Your task to perform on an android device: create a new album in the google photos Image 0: 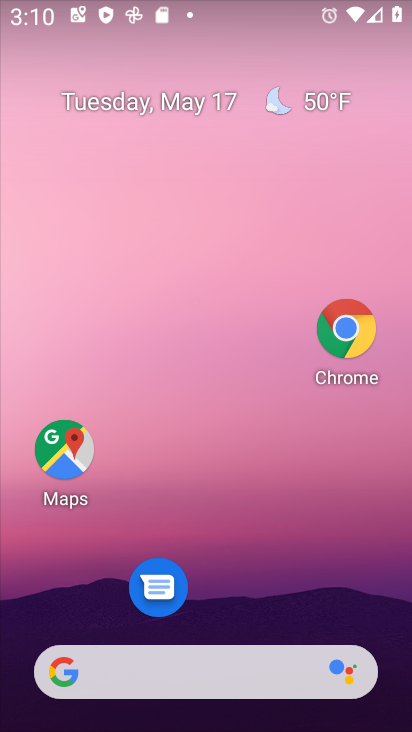
Step 0: drag from (255, 574) to (240, 170)
Your task to perform on an android device: create a new album in the google photos Image 1: 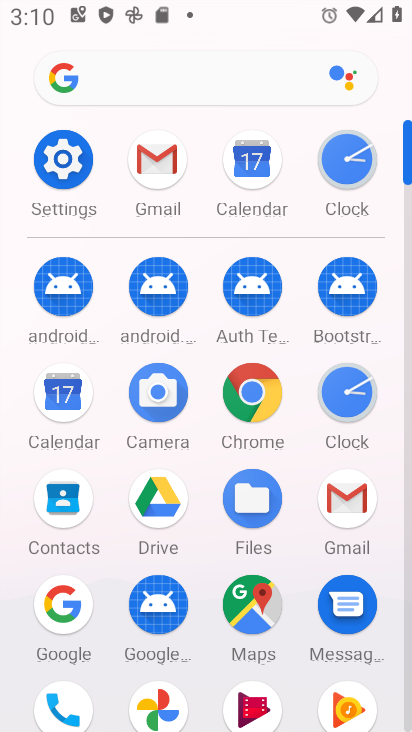
Step 1: click (154, 705)
Your task to perform on an android device: create a new album in the google photos Image 2: 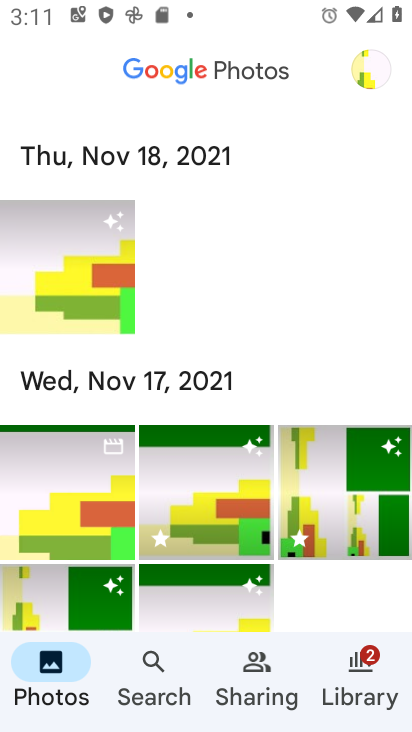
Step 2: click (359, 661)
Your task to perform on an android device: create a new album in the google photos Image 3: 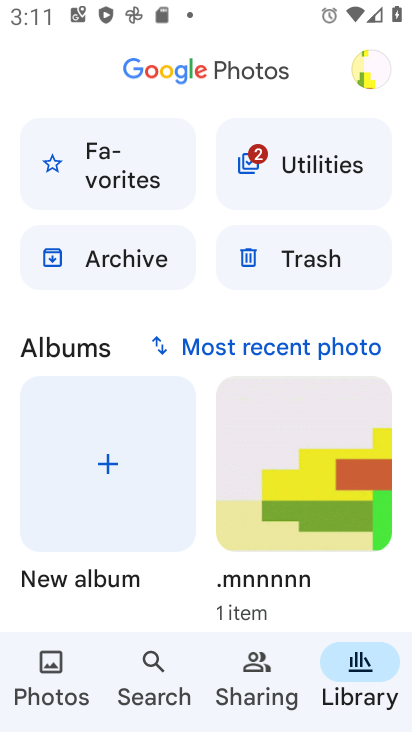
Step 3: click (128, 480)
Your task to perform on an android device: create a new album in the google photos Image 4: 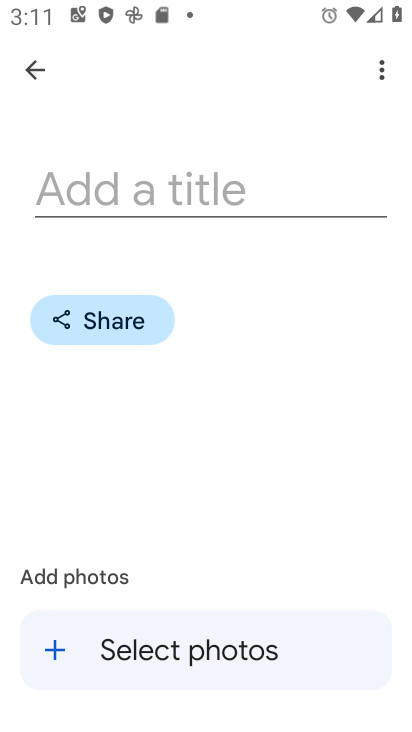
Step 4: click (179, 208)
Your task to perform on an android device: create a new album in the google photos Image 5: 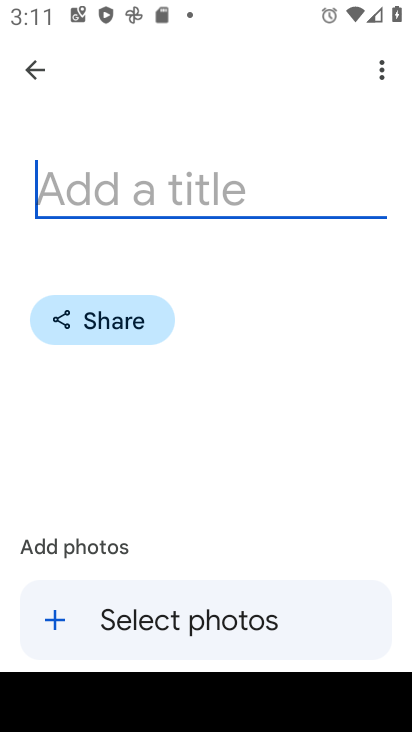
Step 5: type "asqas"
Your task to perform on an android device: create a new album in the google photos Image 6: 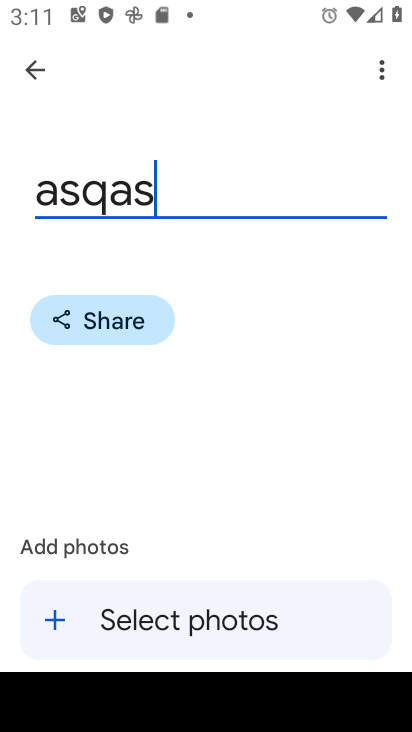
Step 6: click (62, 632)
Your task to perform on an android device: create a new album in the google photos Image 7: 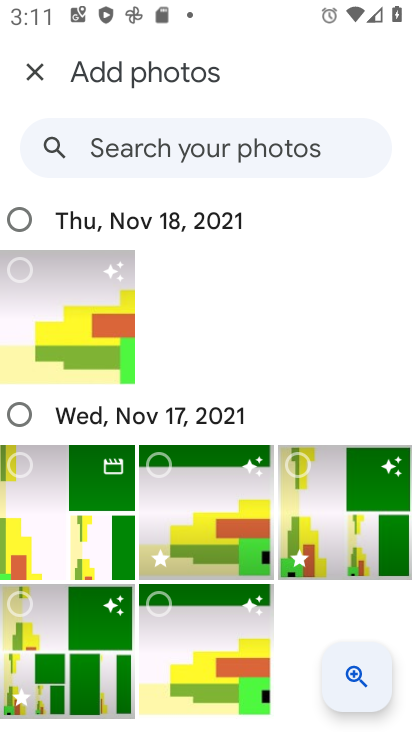
Step 7: click (26, 232)
Your task to perform on an android device: create a new album in the google photos Image 8: 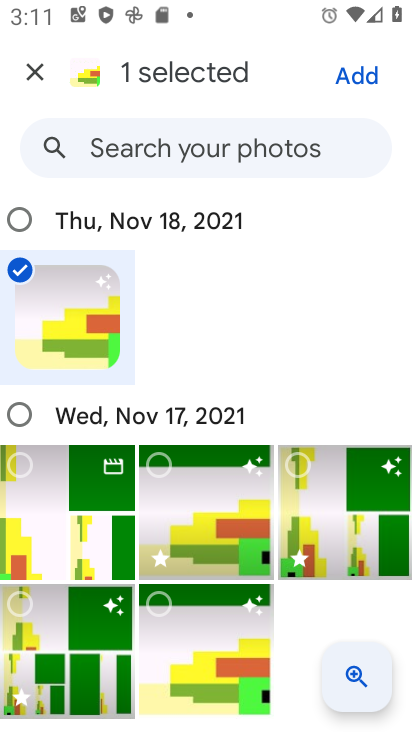
Step 8: click (24, 418)
Your task to perform on an android device: create a new album in the google photos Image 9: 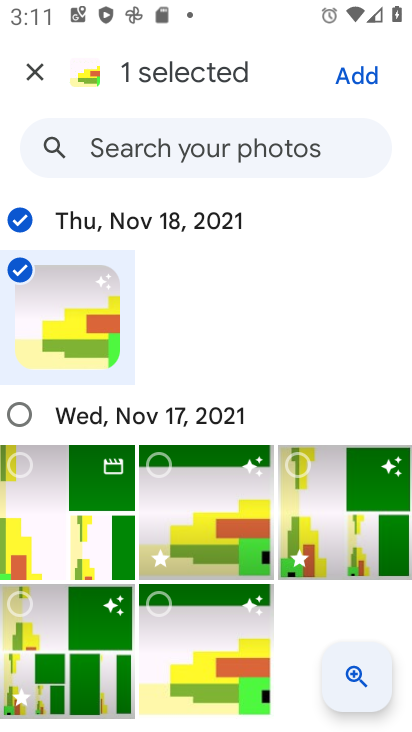
Step 9: click (333, 91)
Your task to perform on an android device: create a new album in the google photos Image 10: 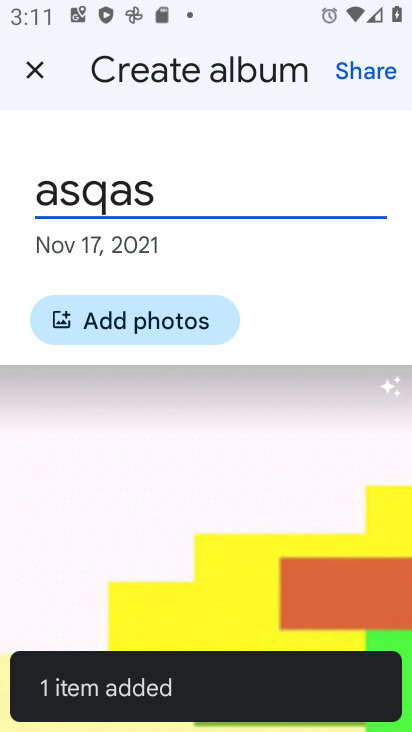
Step 10: task complete